Your task to perform on an android device: open wifi settings Image 0: 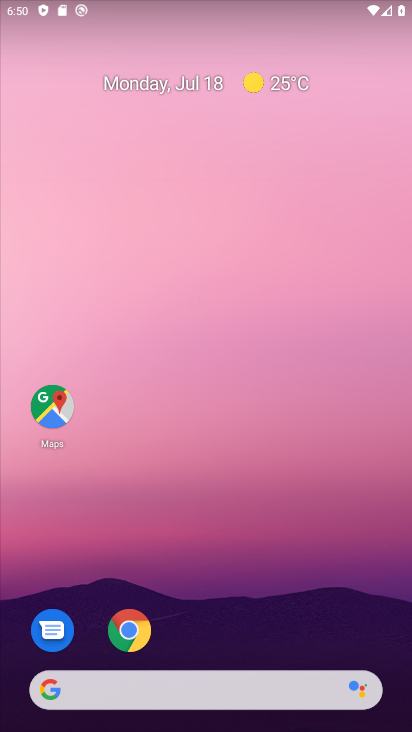
Step 0: drag from (284, 709) to (331, 160)
Your task to perform on an android device: open wifi settings Image 1: 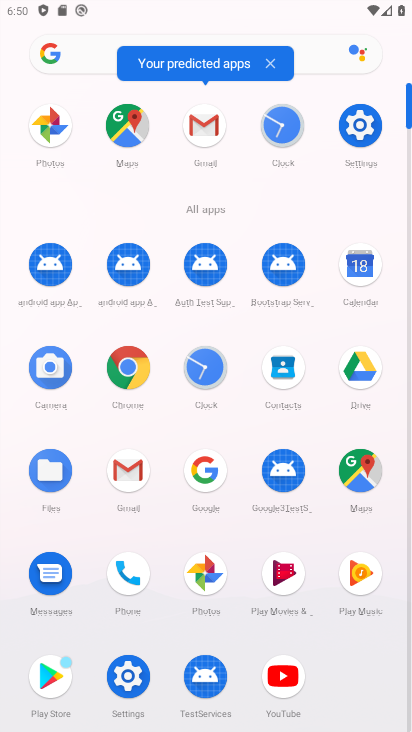
Step 1: click (366, 129)
Your task to perform on an android device: open wifi settings Image 2: 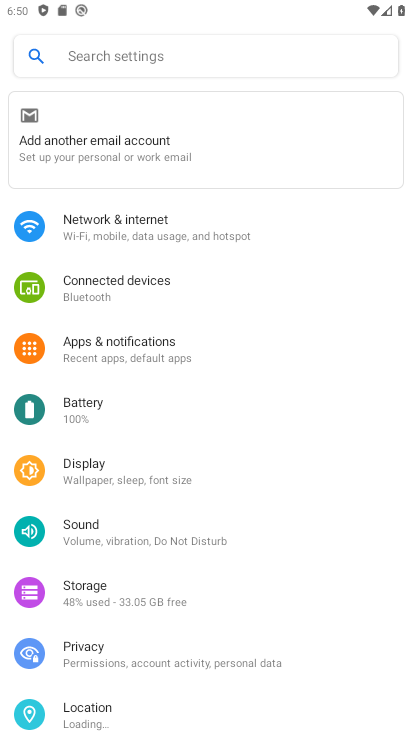
Step 2: click (110, 225)
Your task to perform on an android device: open wifi settings Image 3: 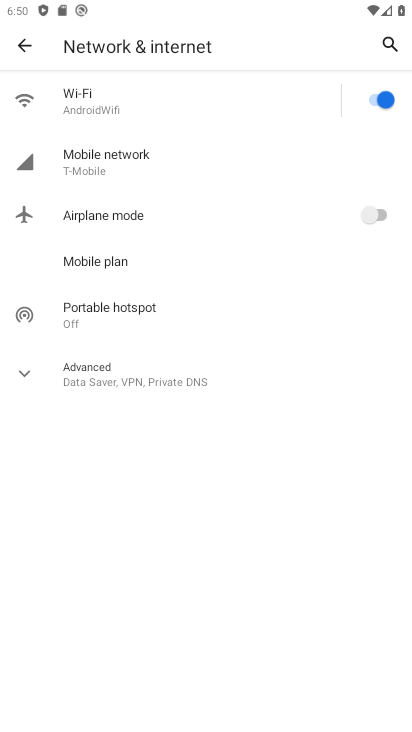
Step 3: click (169, 106)
Your task to perform on an android device: open wifi settings Image 4: 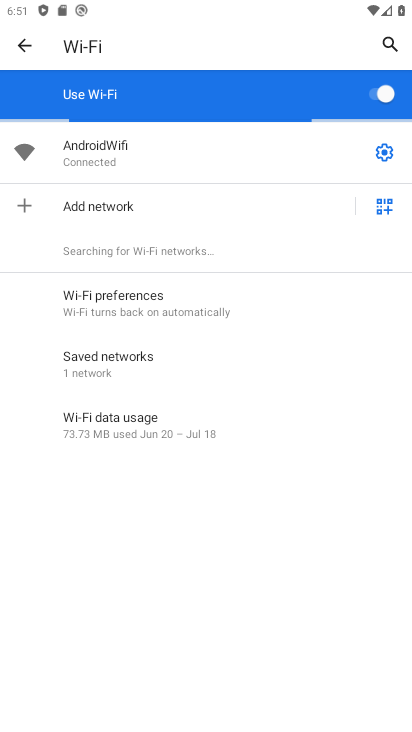
Step 4: task complete